Your task to perform on an android device: set the stopwatch Image 0: 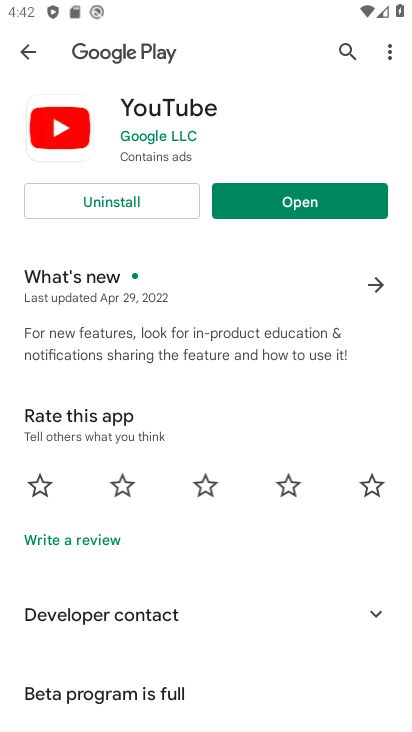
Step 0: press home button
Your task to perform on an android device: set the stopwatch Image 1: 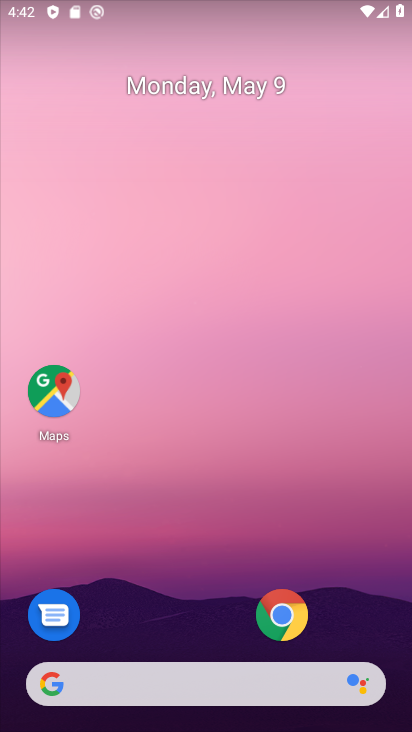
Step 1: drag from (198, 657) to (200, 259)
Your task to perform on an android device: set the stopwatch Image 2: 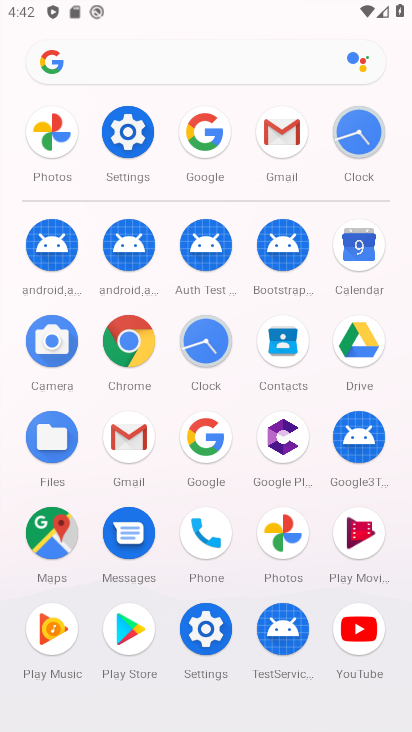
Step 2: click (362, 143)
Your task to perform on an android device: set the stopwatch Image 3: 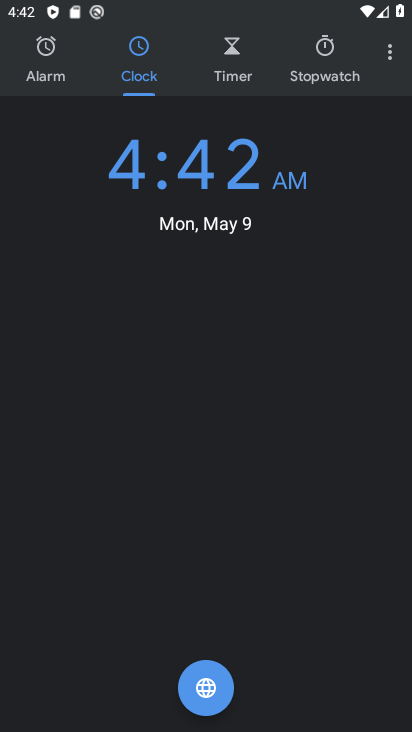
Step 3: click (318, 69)
Your task to perform on an android device: set the stopwatch Image 4: 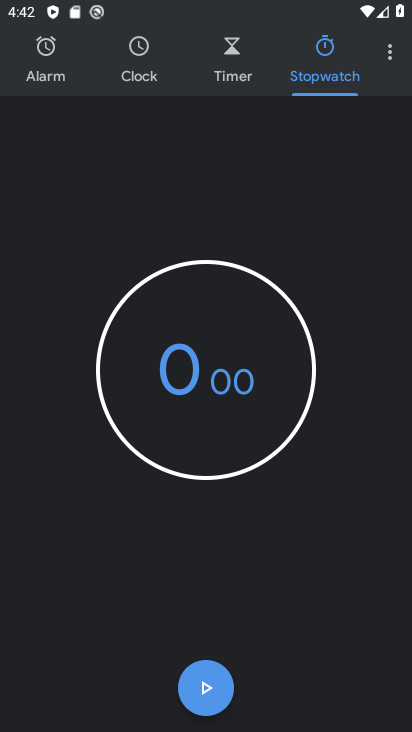
Step 4: click (206, 689)
Your task to perform on an android device: set the stopwatch Image 5: 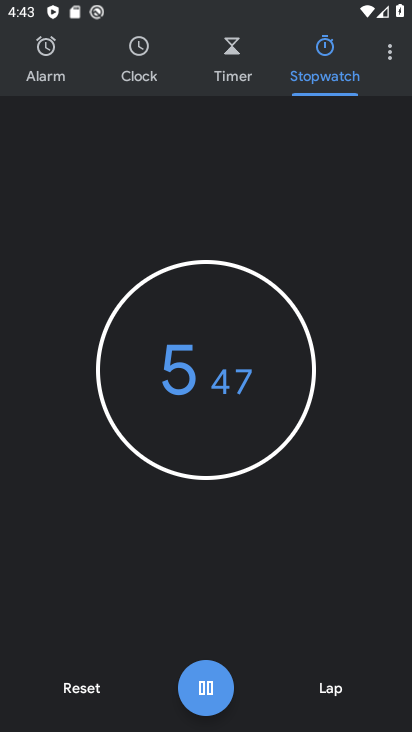
Step 5: click (201, 700)
Your task to perform on an android device: set the stopwatch Image 6: 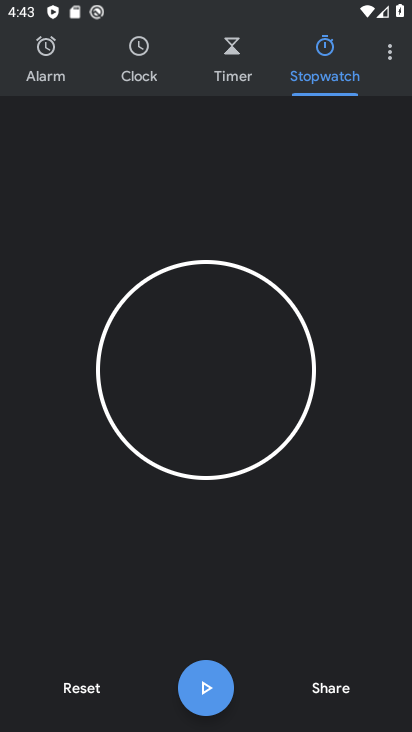
Step 6: task complete